Your task to perform on an android device: change the clock style Image 0: 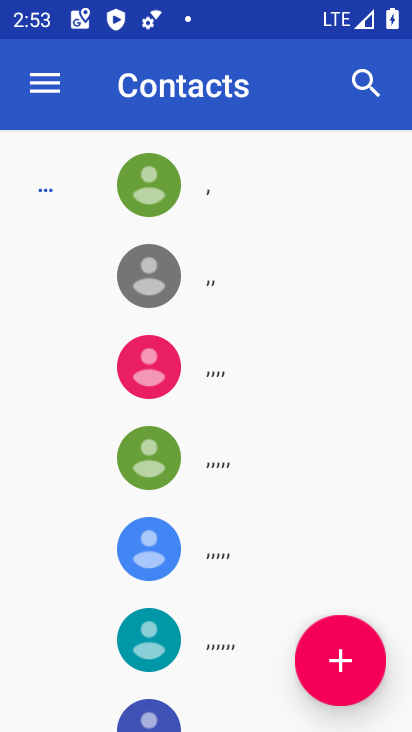
Step 0: press home button
Your task to perform on an android device: change the clock style Image 1: 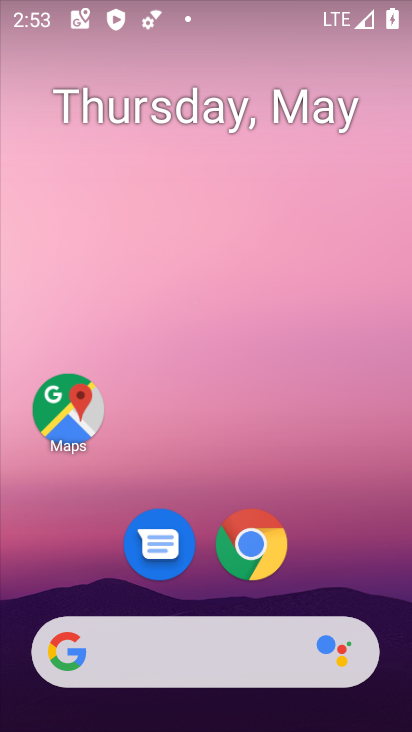
Step 1: drag from (154, 690) to (262, 28)
Your task to perform on an android device: change the clock style Image 2: 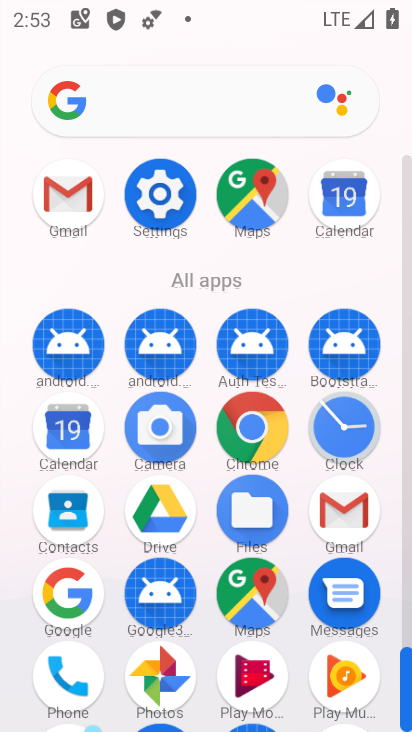
Step 2: click (351, 424)
Your task to perform on an android device: change the clock style Image 3: 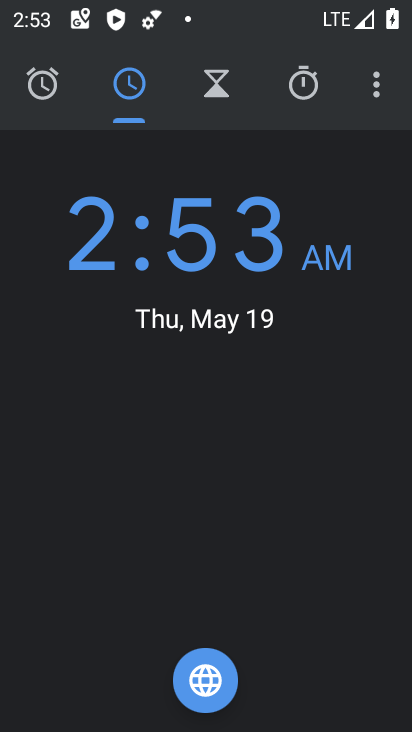
Step 3: click (375, 84)
Your task to perform on an android device: change the clock style Image 4: 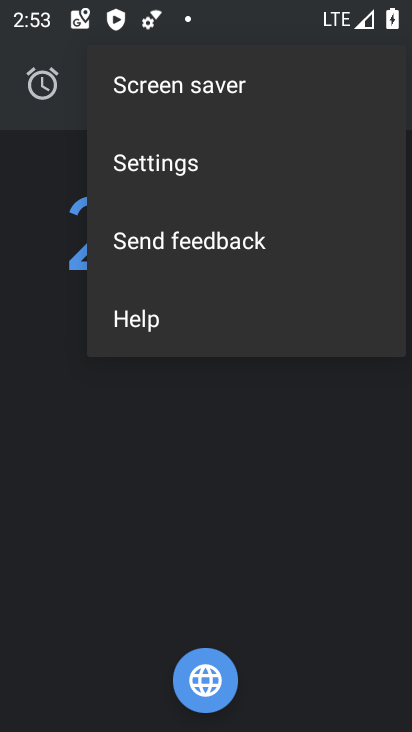
Step 4: click (232, 172)
Your task to perform on an android device: change the clock style Image 5: 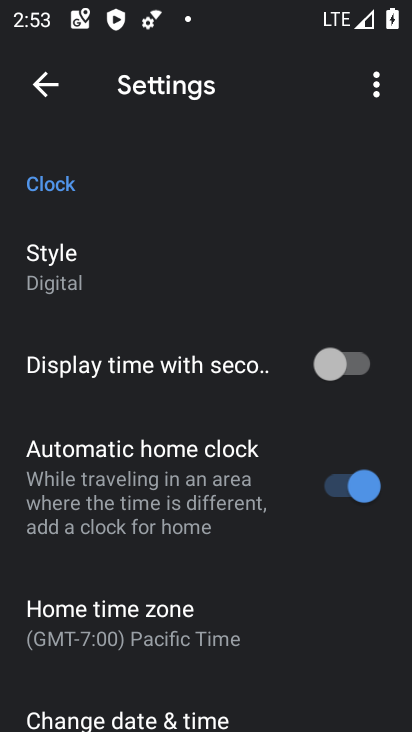
Step 5: click (77, 268)
Your task to perform on an android device: change the clock style Image 6: 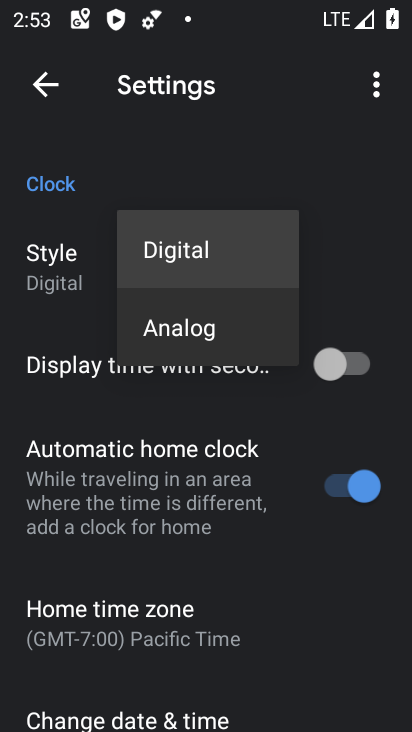
Step 6: click (172, 332)
Your task to perform on an android device: change the clock style Image 7: 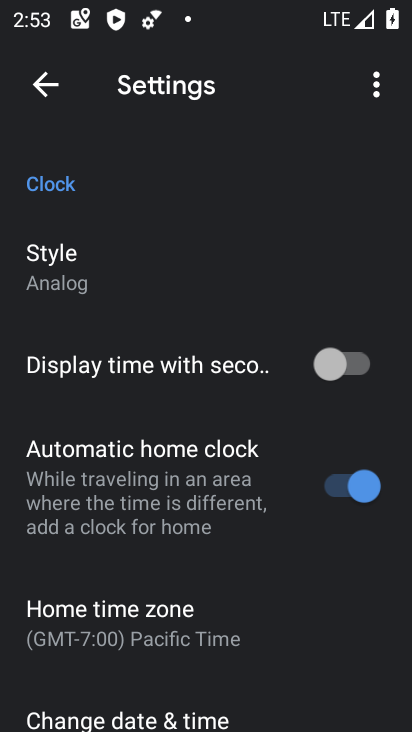
Step 7: task complete